Your task to perform on an android device: uninstall "HBO Max: Stream TV & Movies" Image 0: 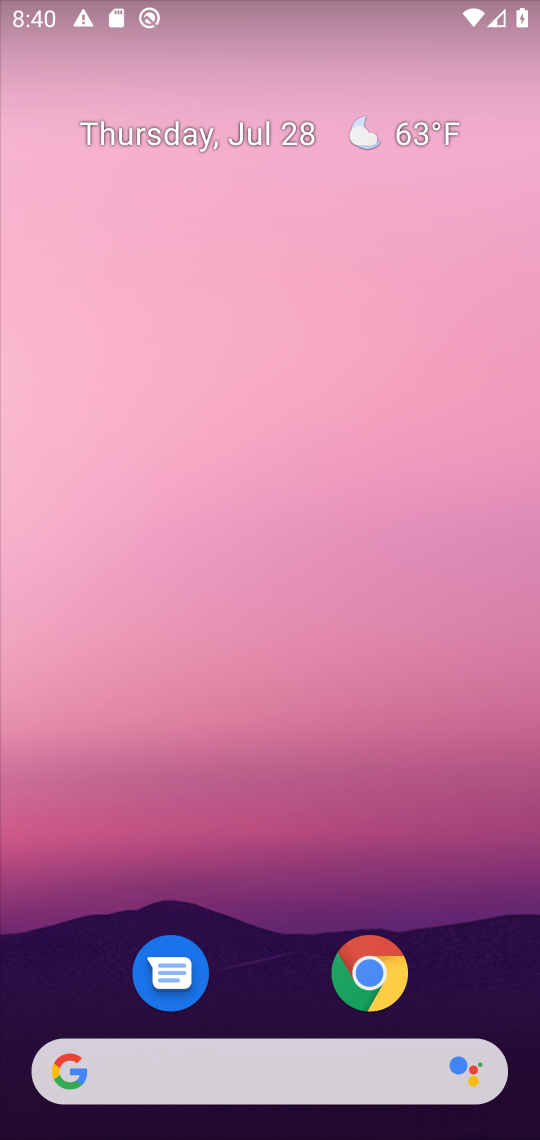
Step 0: drag from (297, 1065) to (461, 505)
Your task to perform on an android device: uninstall "HBO Max: Stream TV & Movies" Image 1: 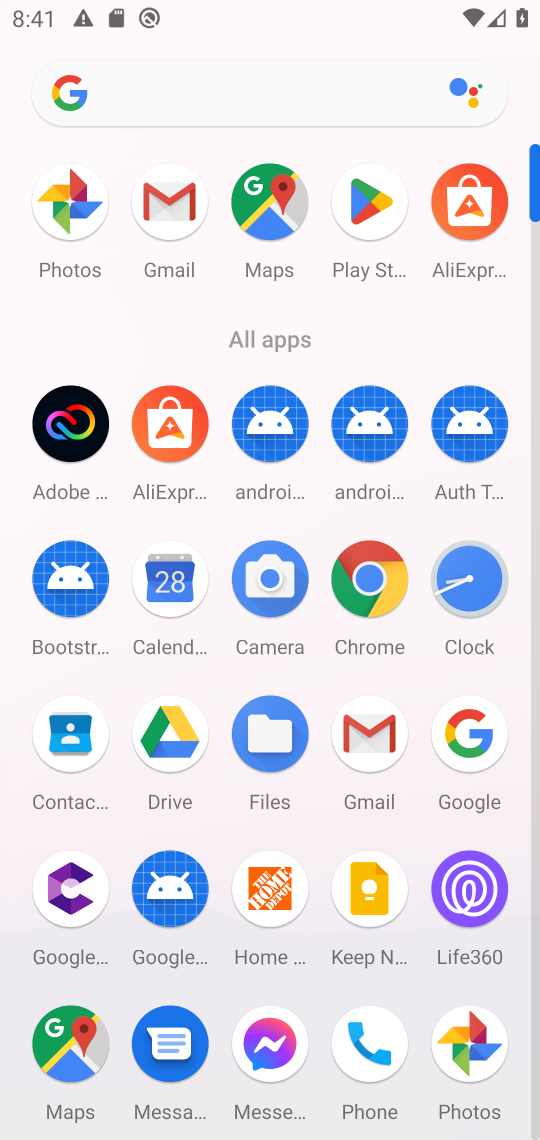
Step 1: click (367, 229)
Your task to perform on an android device: uninstall "HBO Max: Stream TV & Movies" Image 2: 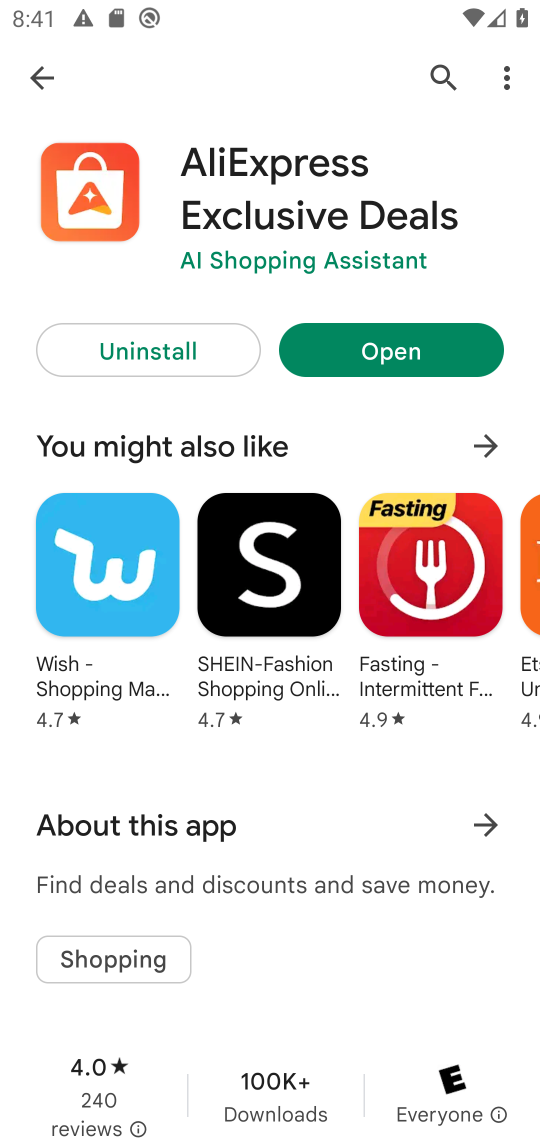
Step 2: click (40, 72)
Your task to perform on an android device: uninstall "HBO Max: Stream TV & Movies" Image 3: 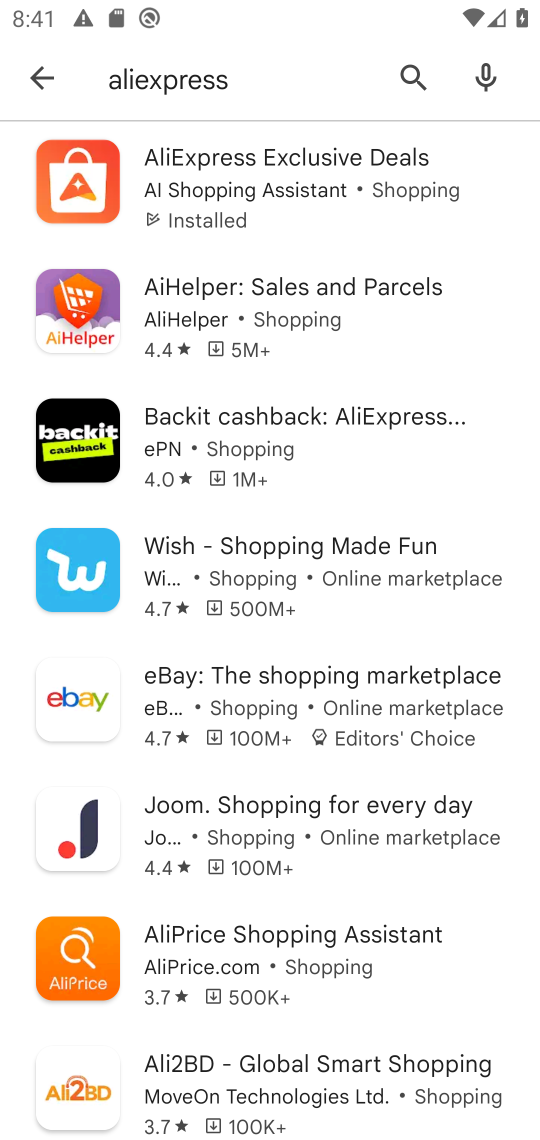
Step 3: click (41, 94)
Your task to perform on an android device: uninstall "HBO Max: Stream TV & Movies" Image 4: 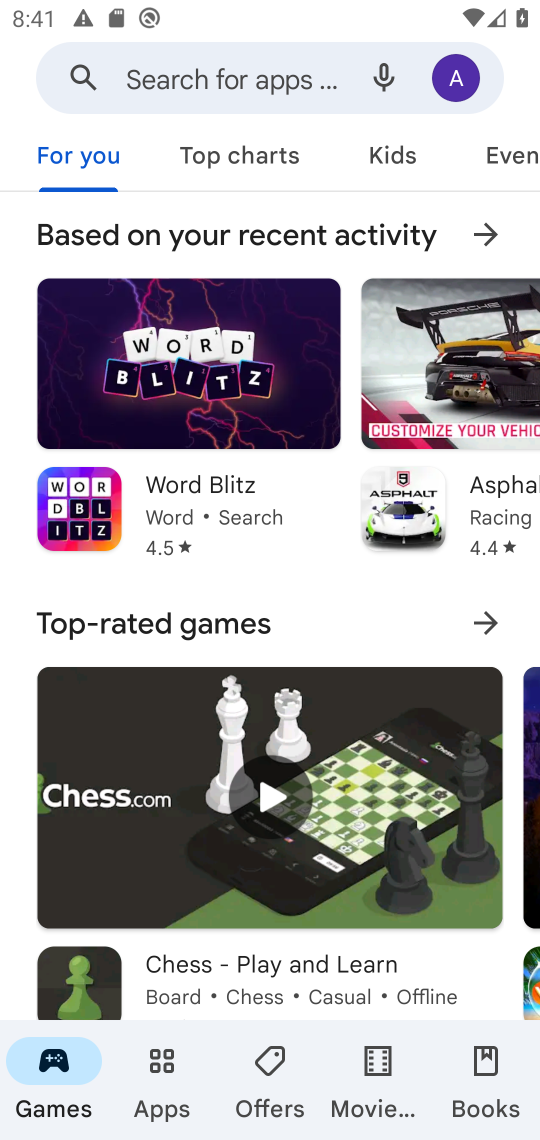
Step 4: click (195, 71)
Your task to perform on an android device: uninstall "HBO Max: Stream TV & Movies" Image 5: 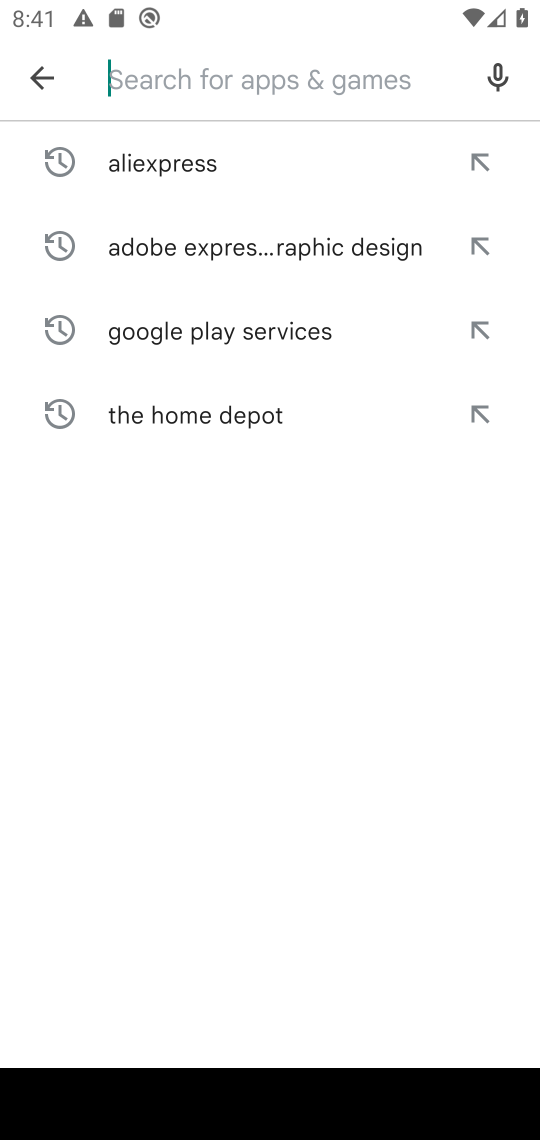
Step 5: type "HBO Max: Stream TV & Movies"
Your task to perform on an android device: uninstall "HBO Max: Stream TV & Movies" Image 6: 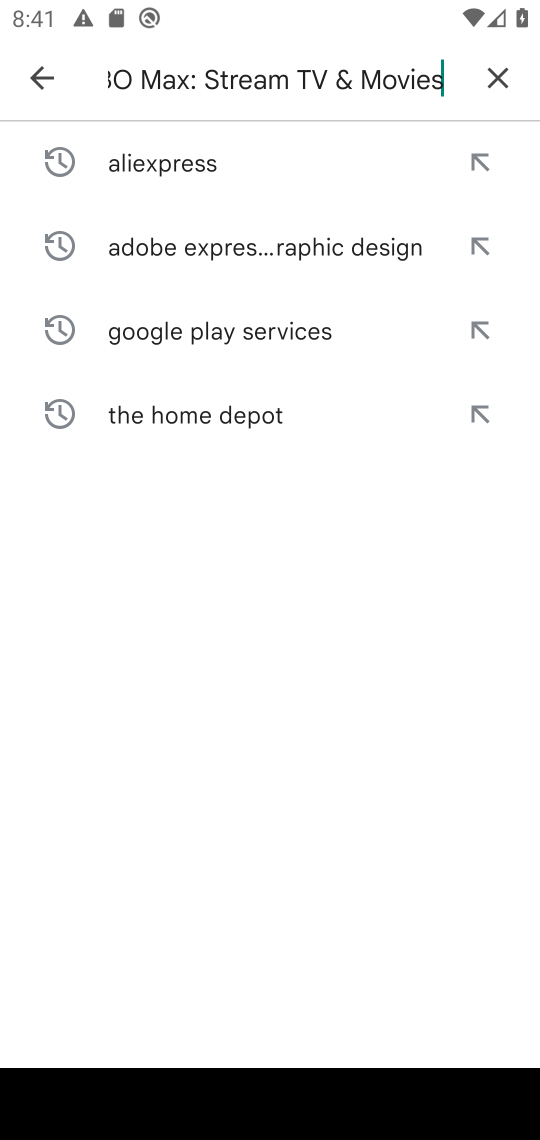
Step 6: type ""
Your task to perform on an android device: uninstall "HBO Max: Stream TV & Movies" Image 7: 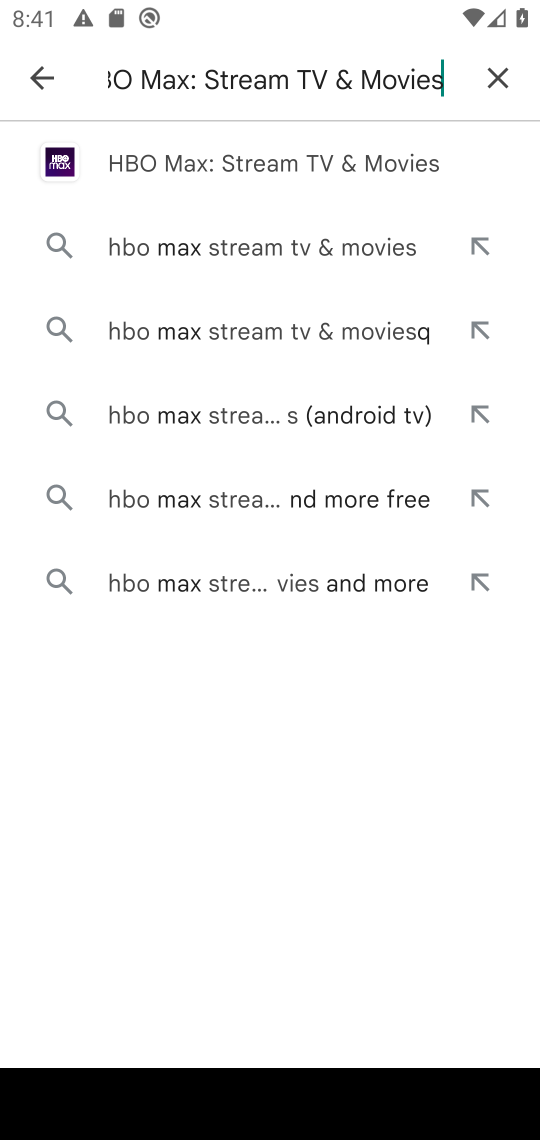
Step 7: click (246, 158)
Your task to perform on an android device: uninstall "HBO Max: Stream TV & Movies" Image 8: 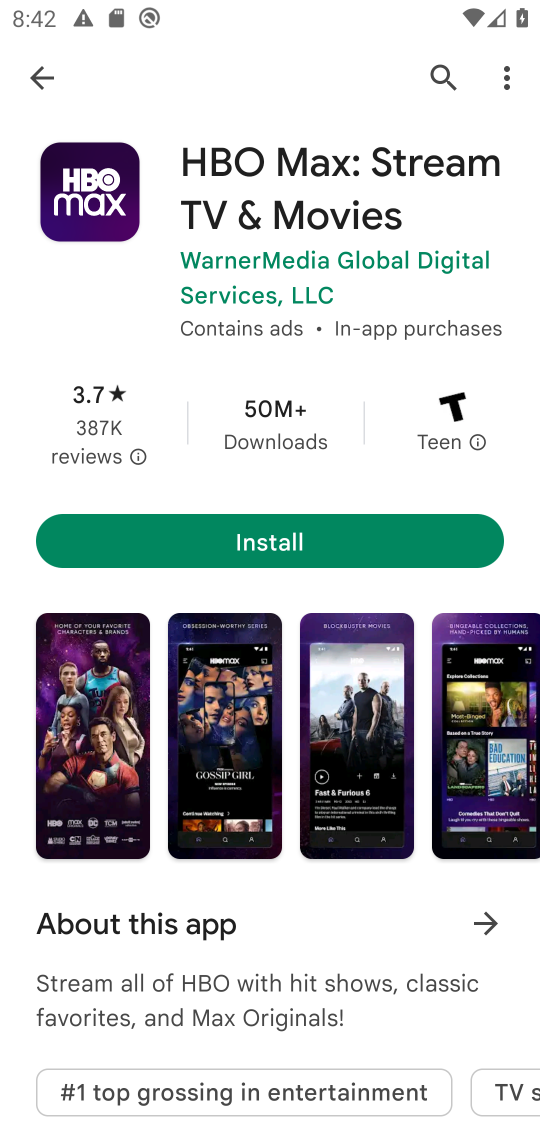
Step 8: task complete